Your task to perform on an android device: Go to eBay Image 0: 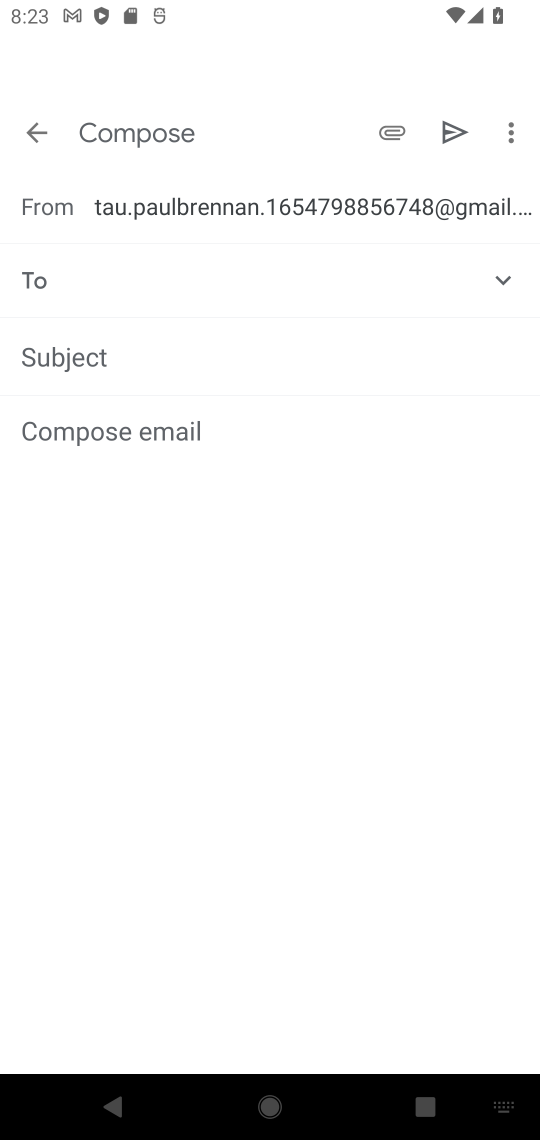
Step 0: press home button
Your task to perform on an android device: Go to eBay Image 1: 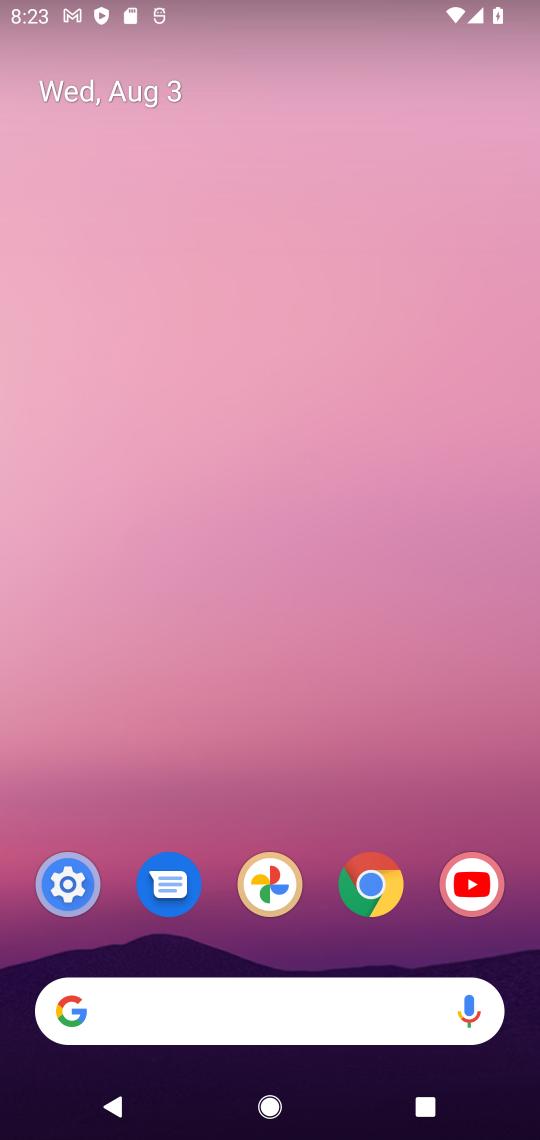
Step 1: click (150, 982)
Your task to perform on an android device: Go to eBay Image 2: 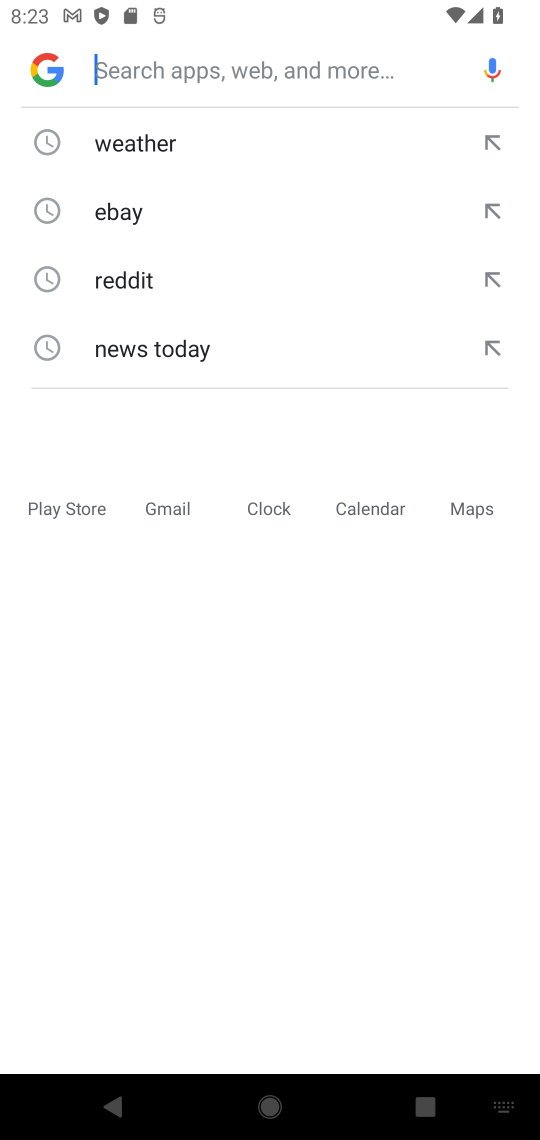
Step 2: click (149, 206)
Your task to perform on an android device: Go to eBay Image 3: 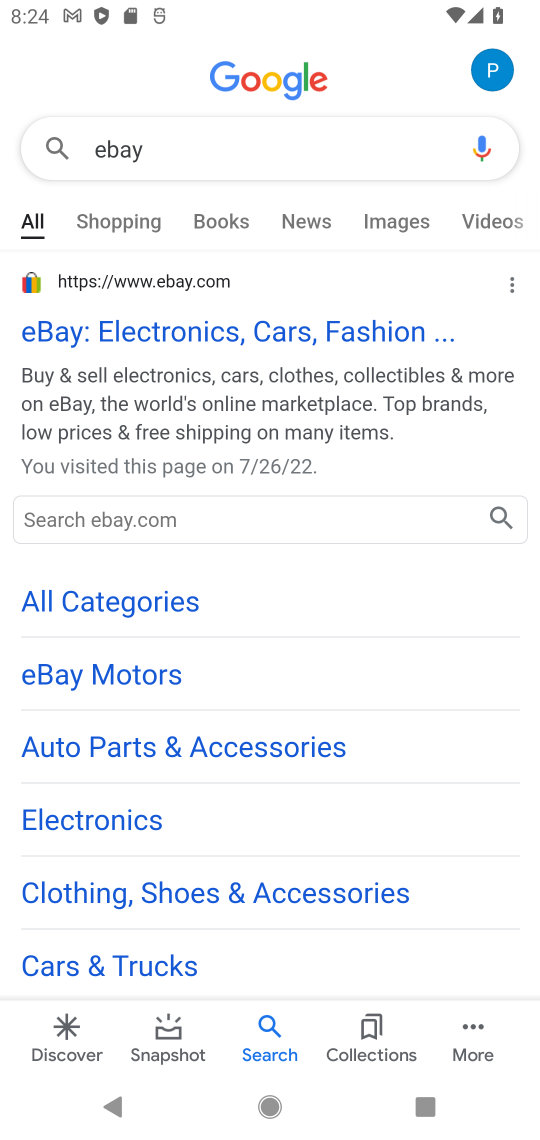
Step 3: task complete